Your task to perform on an android device: turn on translation in the chrome app Image 0: 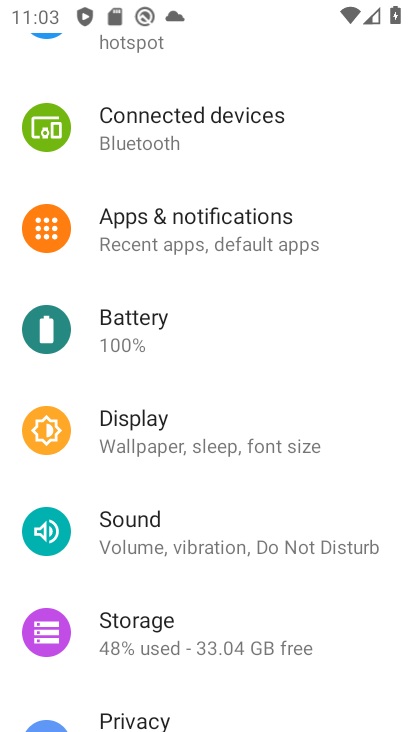
Step 0: press home button
Your task to perform on an android device: turn on translation in the chrome app Image 1: 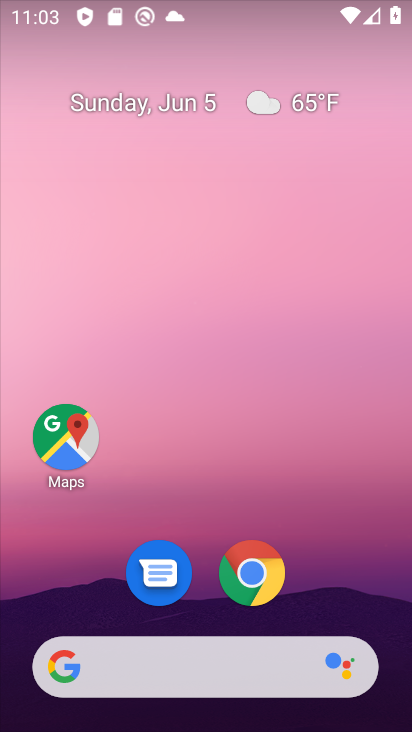
Step 1: drag from (217, 517) to (249, 108)
Your task to perform on an android device: turn on translation in the chrome app Image 2: 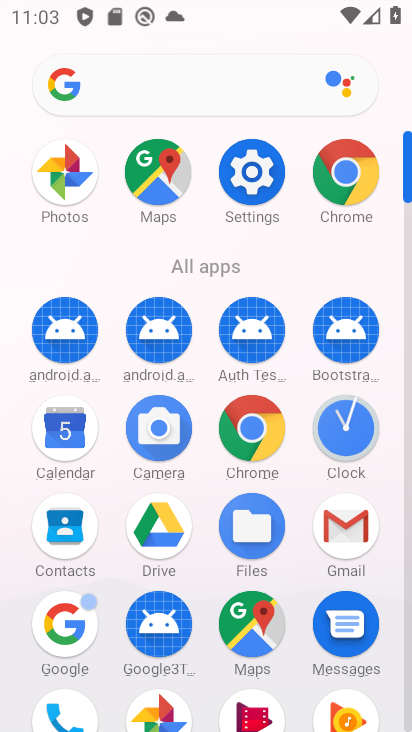
Step 2: drag from (209, 303) to (217, 121)
Your task to perform on an android device: turn on translation in the chrome app Image 3: 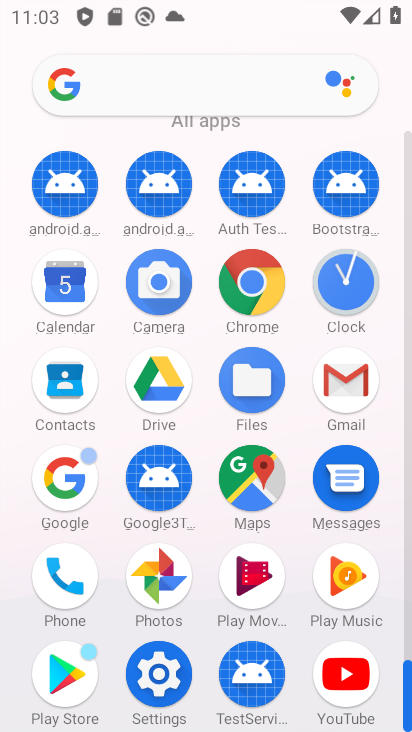
Step 3: click (257, 299)
Your task to perform on an android device: turn on translation in the chrome app Image 4: 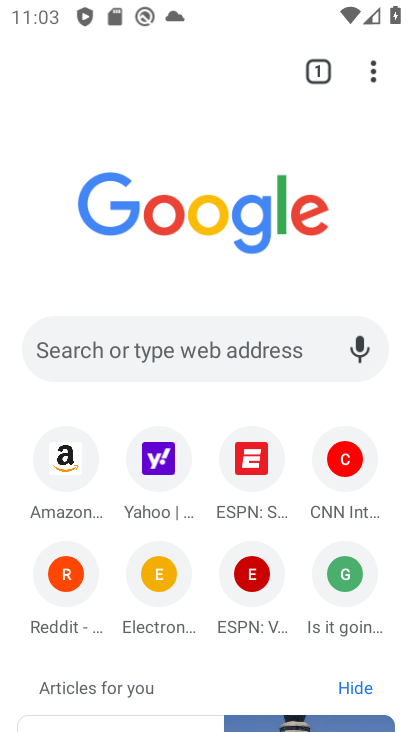
Step 4: click (370, 79)
Your task to perform on an android device: turn on translation in the chrome app Image 5: 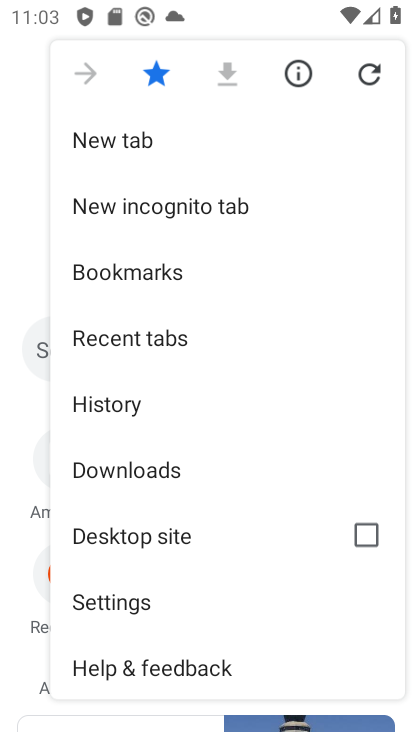
Step 5: drag from (215, 487) to (242, 213)
Your task to perform on an android device: turn on translation in the chrome app Image 6: 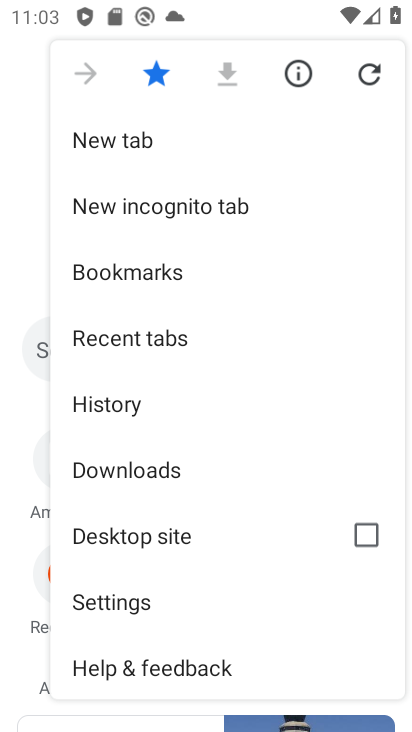
Step 6: click (155, 604)
Your task to perform on an android device: turn on translation in the chrome app Image 7: 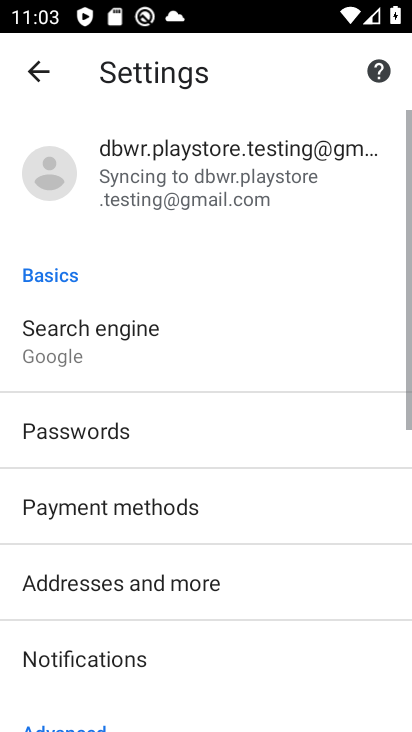
Step 7: drag from (221, 574) to (297, 132)
Your task to perform on an android device: turn on translation in the chrome app Image 8: 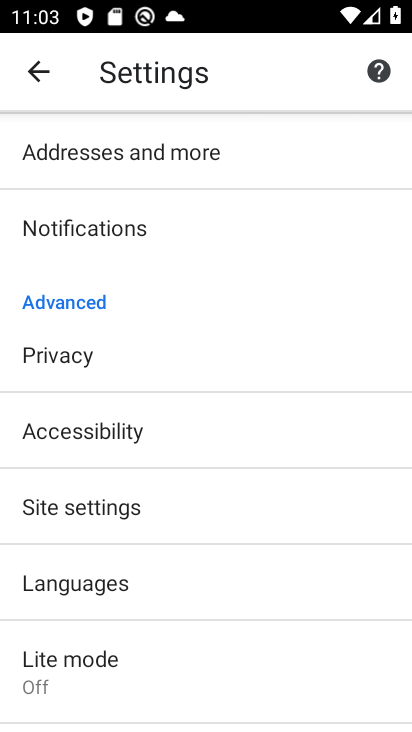
Step 8: click (166, 582)
Your task to perform on an android device: turn on translation in the chrome app Image 9: 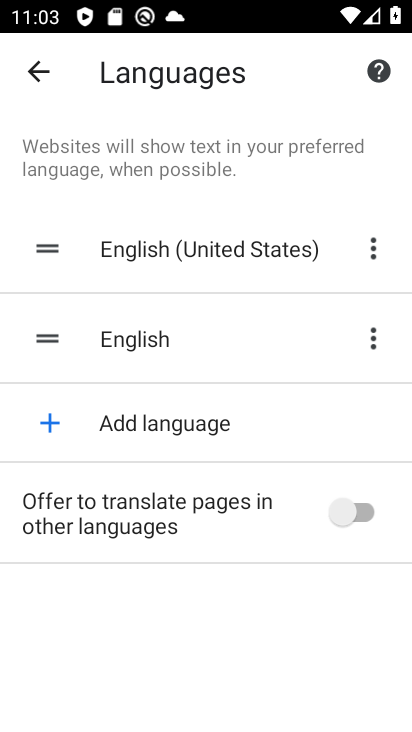
Step 9: click (355, 519)
Your task to perform on an android device: turn on translation in the chrome app Image 10: 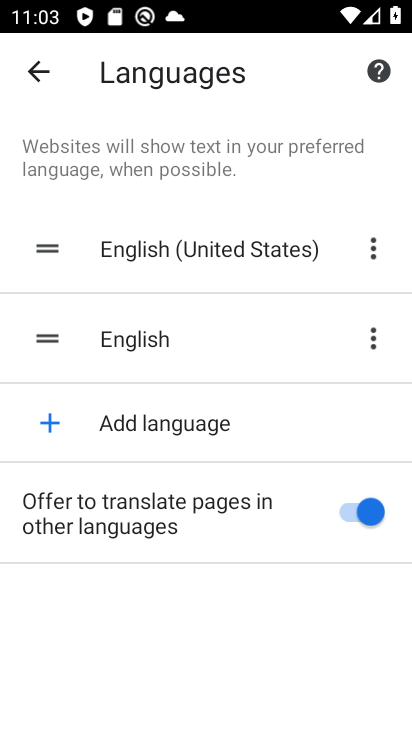
Step 10: task complete